Your task to perform on an android device: Open settings Image 0: 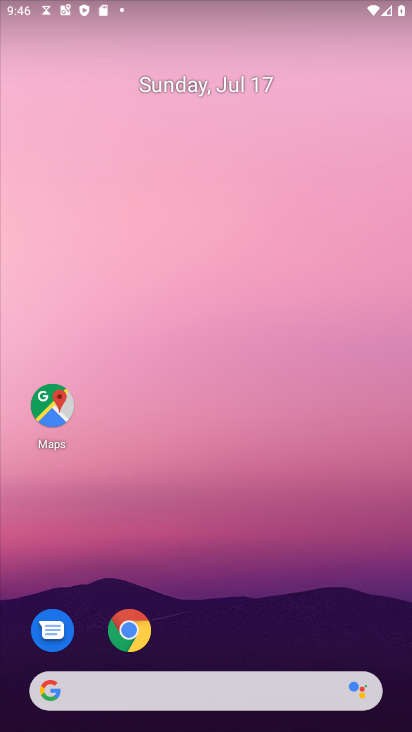
Step 0: drag from (137, 671) to (147, 7)
Your task to perform on an android device: Open settings Image 1: 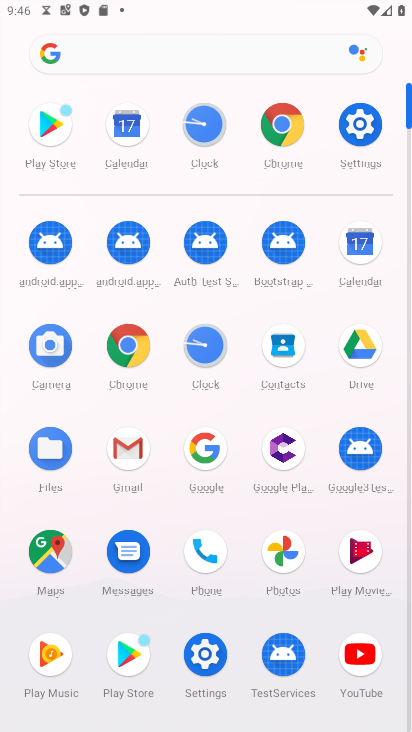
Step 1: click (344, 128)
Your task to perform on an android device: Open settings Image 2: 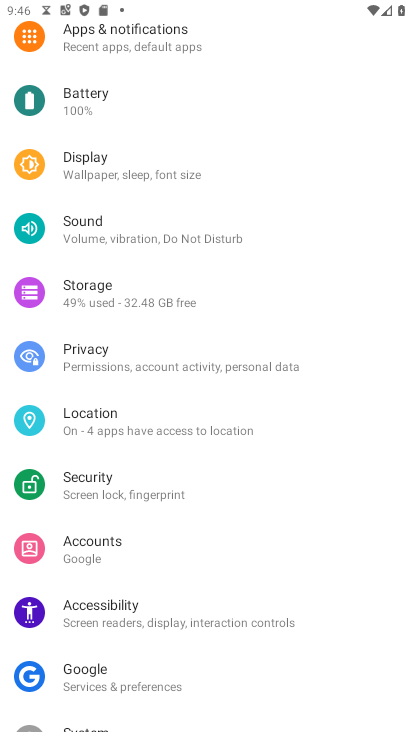
Step 2: task complete